Your task to perform on an android device: Go to Wikipedia Image 0: 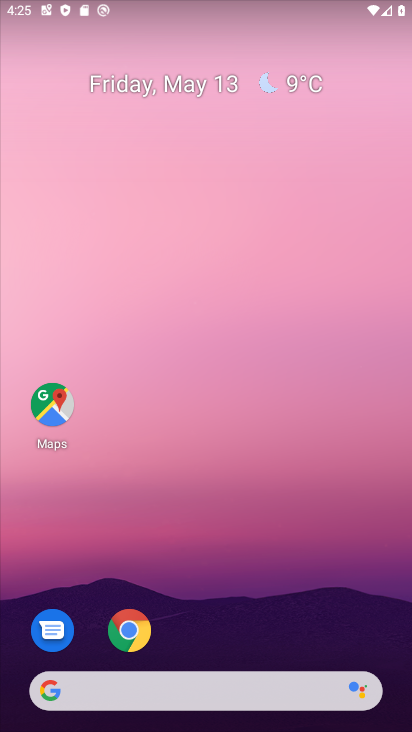
Step 0: drag from (200, 518) to (221, 53)
Your task to perform on an android device: Go to Wikipedia Image 1: 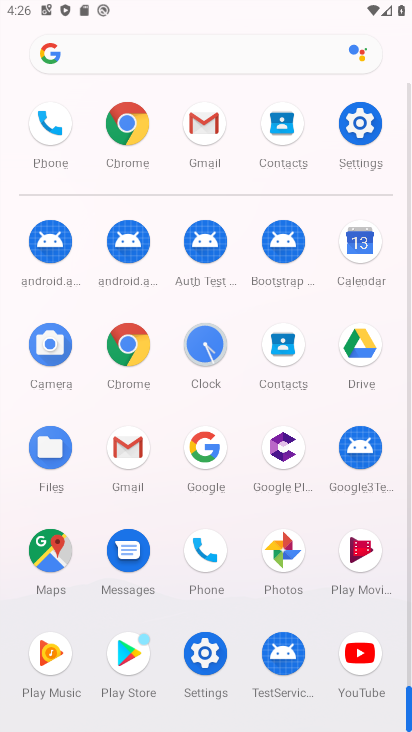
Step 1: drag from (4, 503) to (22, 201)
Your task to perform on an android device: Go to Wikipedia Image 2: 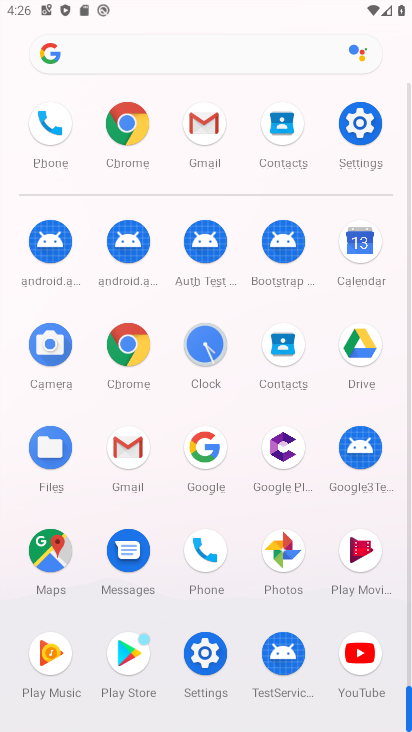
Step 2: click (134, 331)
Your task to perform on an android device: Go to Wikipedia Image 3: 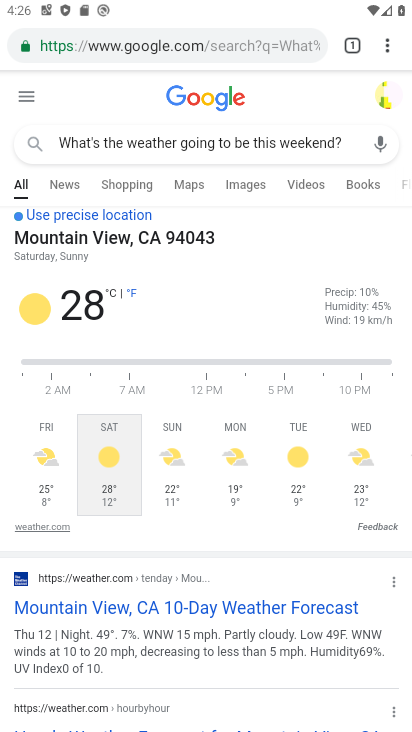
Step 3: click (188, 41)
Your task to perform on an android device: Go to Wikipedia Image 4: 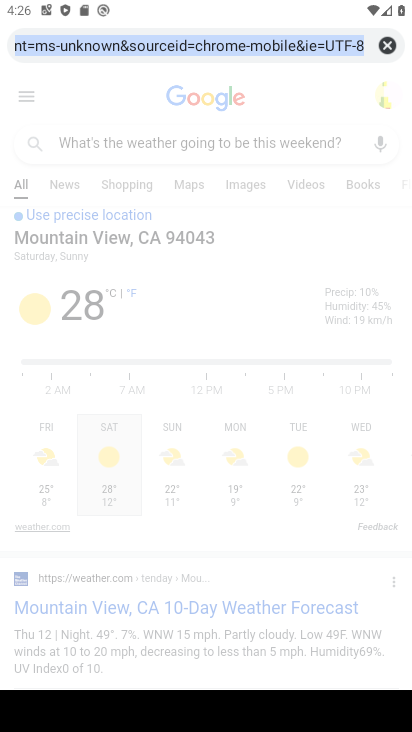
Step 4: click (373, 43)
Your task to perform on an android device: Go to Wikipedia Image 5: 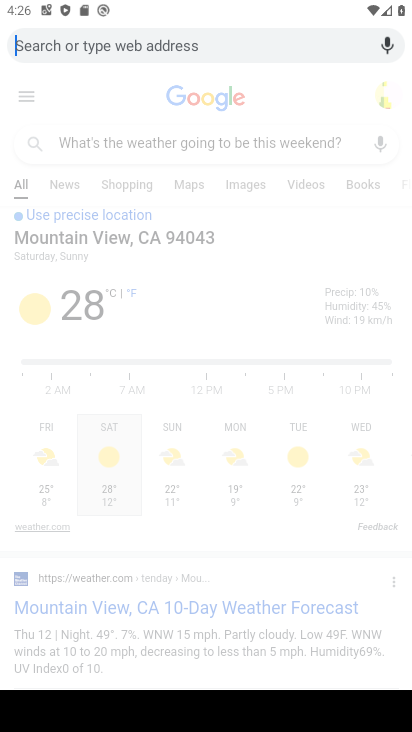
Step 5: type "Wikipedia"
Your task to perform on an android device: Go to Wikipedia Image 6: 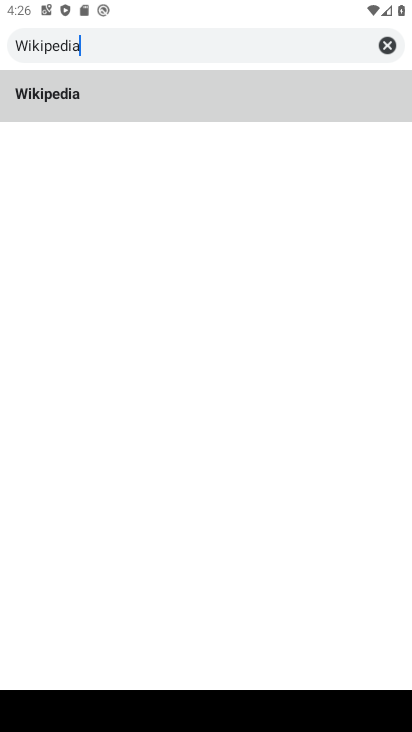
Step 6: type ""
Your task to perform on an android device: Go to Wikipedia Image 7: 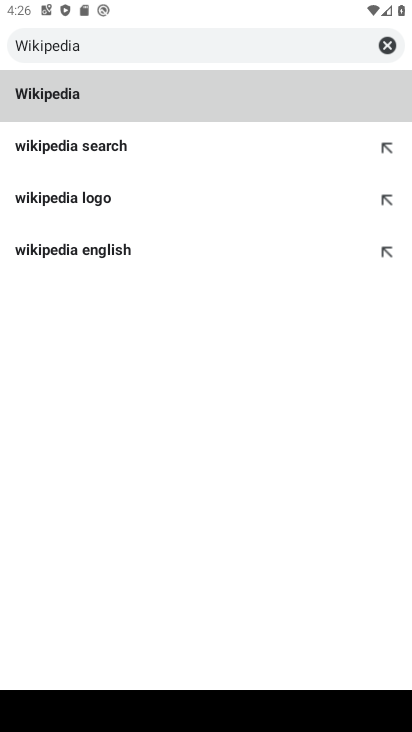
Step 7: click (105, 105)
Your task to perform on an android device: Go to Wikipedia Image 8: 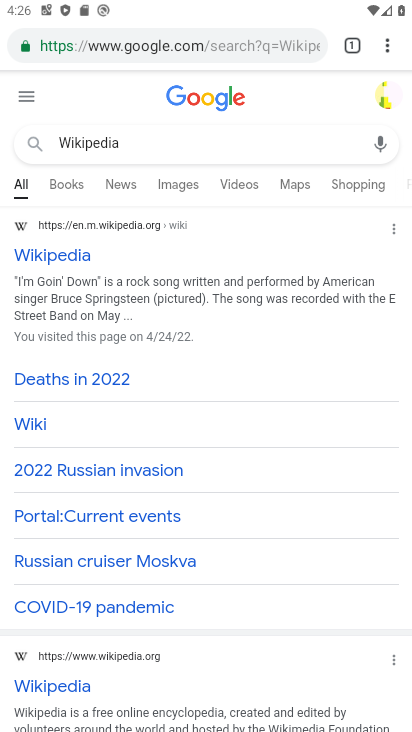
Step 8: click (61, 253)
Your task to perform on an android device: Go to Wikipedia Image 9: 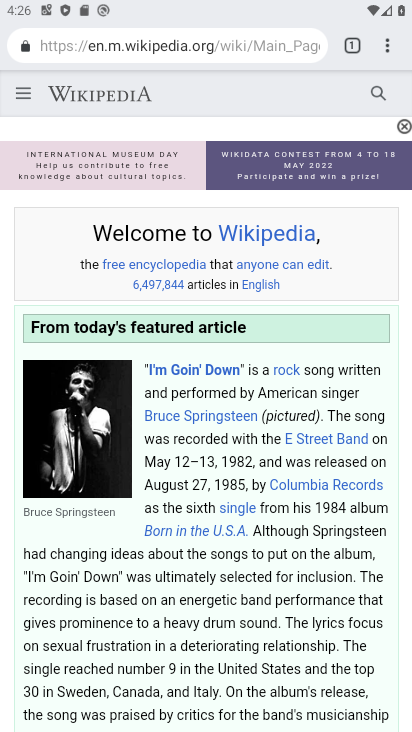
Step 9: task complete